Your task to perform on an android device: Open the phone app and click the voicemail tab. Image 0: 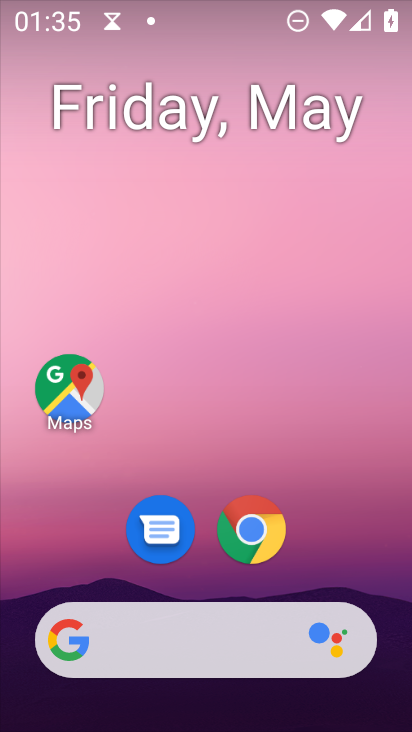
Step 0: drag from (148, 516) to (192, 194)
Your task to perform on an android device: Open the phone app and click the voicemail tab. Image 1: 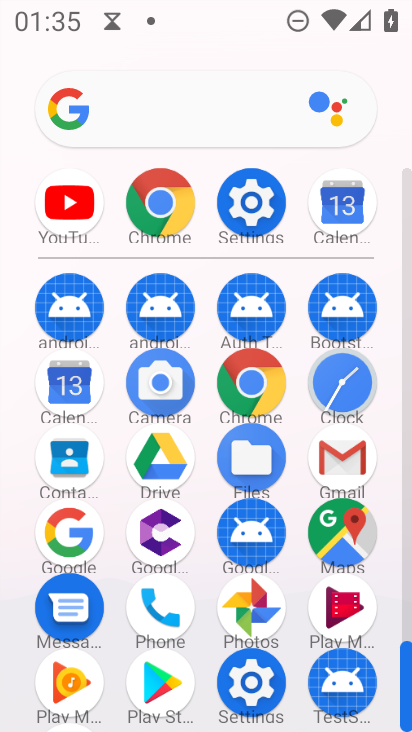
Step 1: click (337, 604)
Your task to perform on an android device: Open the phone app and click the voicemail tab. Image 2: 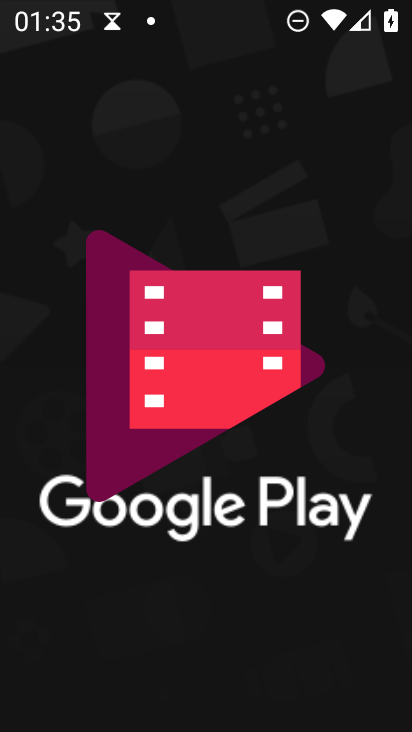
Step 2: press home button
Your task to perform on an android device: Open the phone app and click the voicemail tab. Image 3: 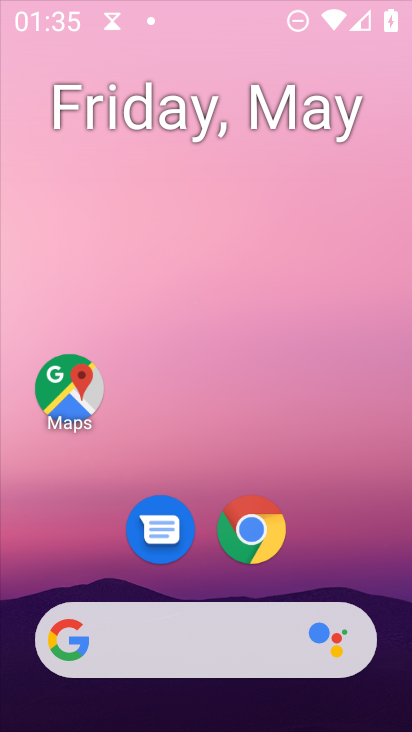
Step 3: drag from (219, 655) to (234, 282)
Your task to perform on an android device: Open the phone app and click the voicemail tab. Image 4: 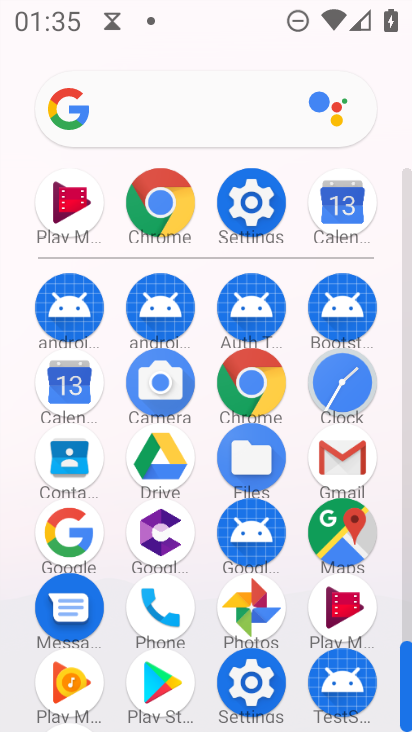
Step 4: click (141, 608)
Your task to perform on an android device: Open the phone app and click the voicemail tab. Image 5: 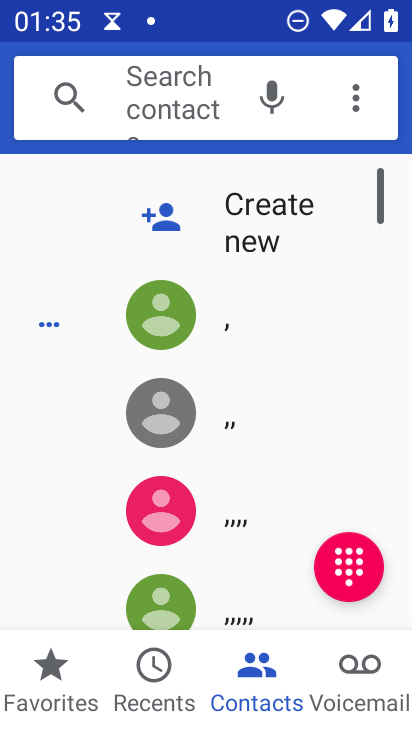
Step 5: click (338, 673)
Your task to perform on an android device: Open the phone app and click the voicemail tab. Image 6: 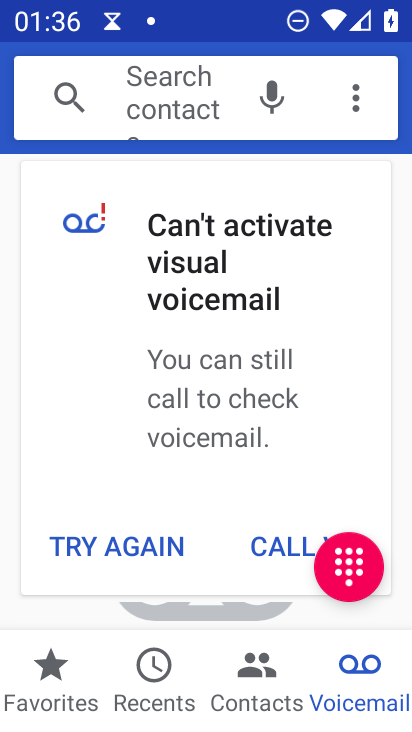
Step 6: task complete